Your task to perform on an android device: turn off priority inbox in the gmail app Image 0: 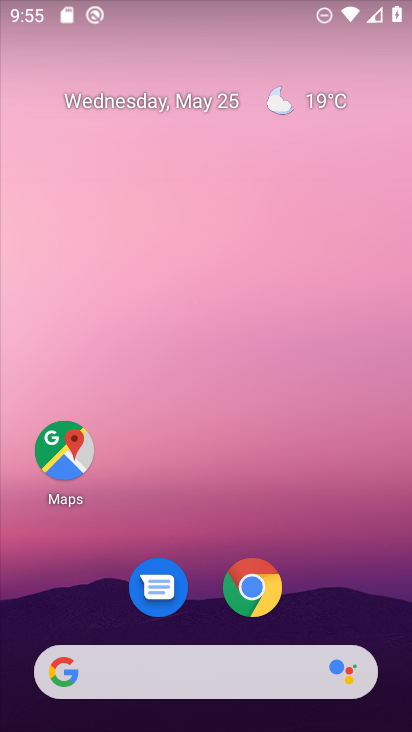
Step 0: drag from (375, 620) to (331, 72)
Your task to perform on an android device: turn off priority inbox in the gmail app Image 1: 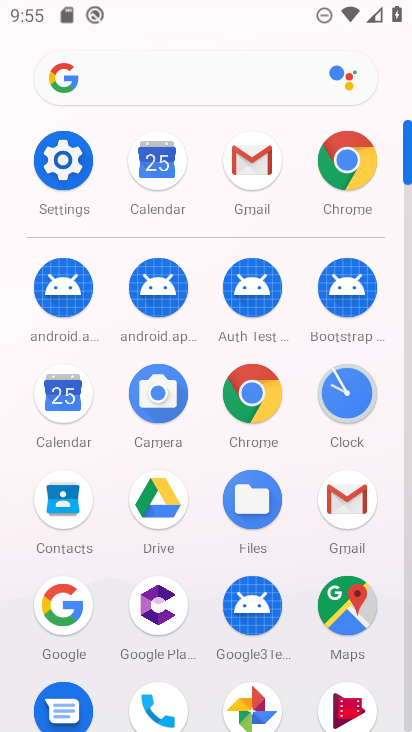
Step 1: click (405, 666)
Your task to perform on an android device: turn off priority inbox in the gmail app Image 2: 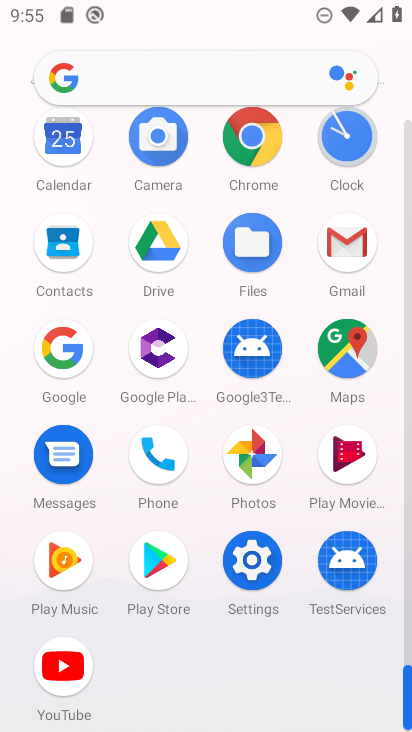
Step 2: click (346, 239)
Your task to perform on an android device: turn off priority inbox in the gmail app Image 3: 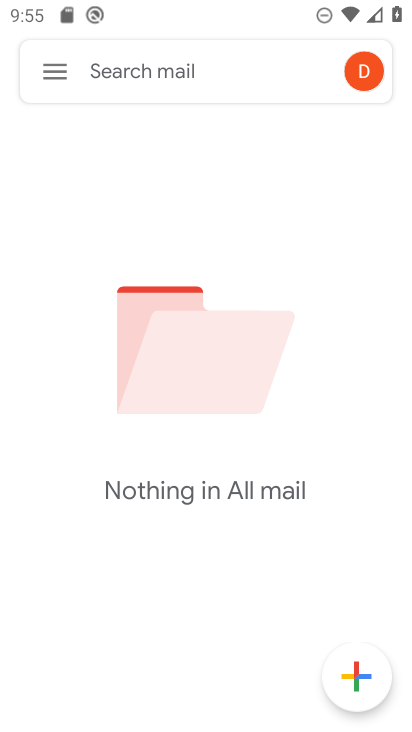
Step 3: click (44, 68)
Your task to perform on an android device: turn off priority inbox in the gmail app Image 4: 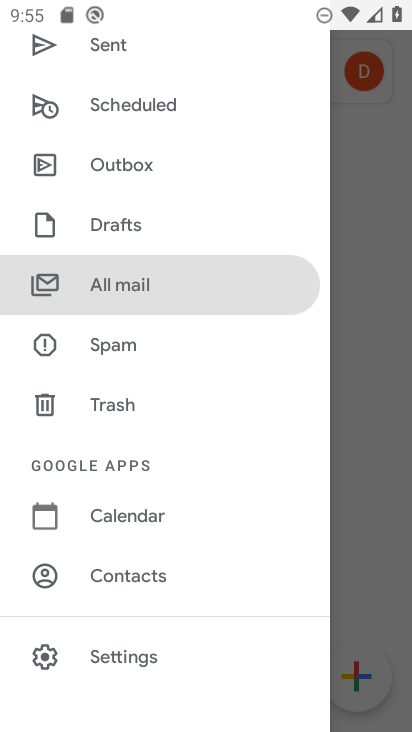
Step 4: click (132, 652)
Your task to perform on an android device: turn off priority inbox in the gmail app Image 5: 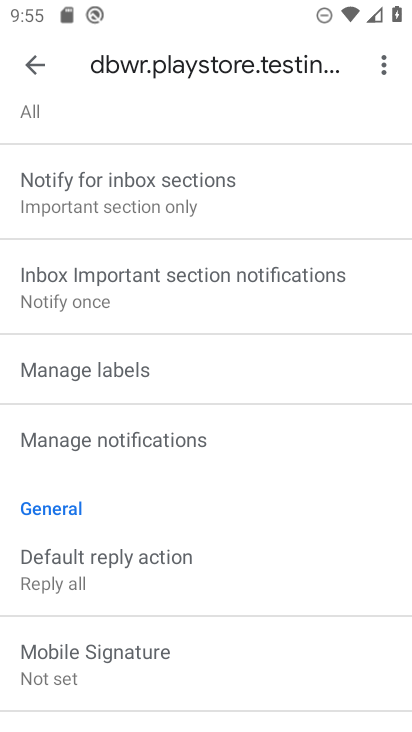
Step 5: drag from (319, 128) to (346, 544)
Your task to perform on an android device: turn off priority inbox in the gmail app Image 6: 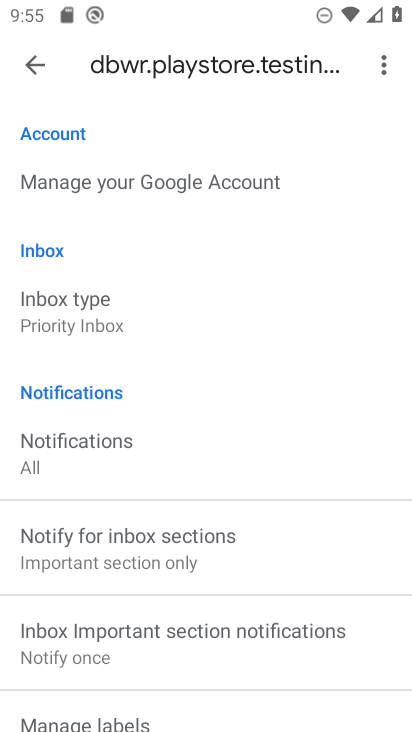
Step 6: click (54, 315)
Your task to perform on an android device: turn off priority inbox in the gmail app Image 7: 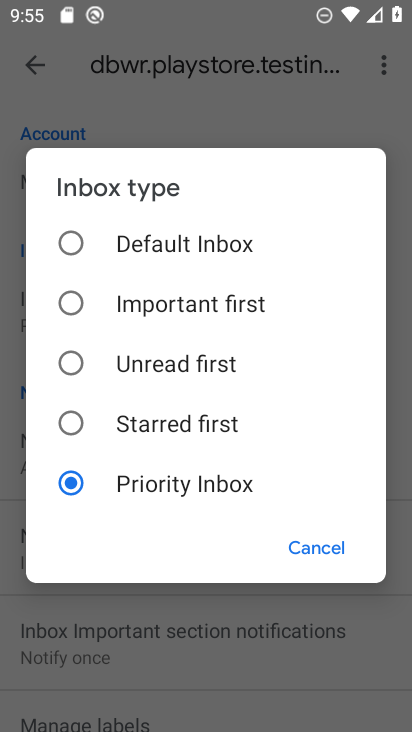
Step 7: click (61, 232)
Your task to perform on an android device: turn off priority inbox in the gmail app Image 8: 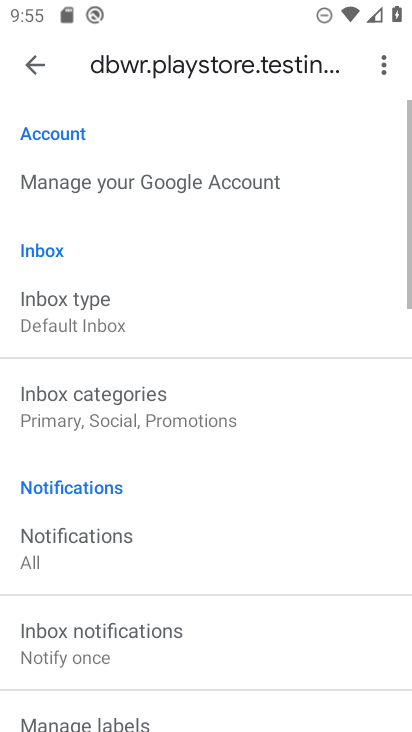
Step 8: task complete